Your task to perform on an android device: turn off location history Image 0: 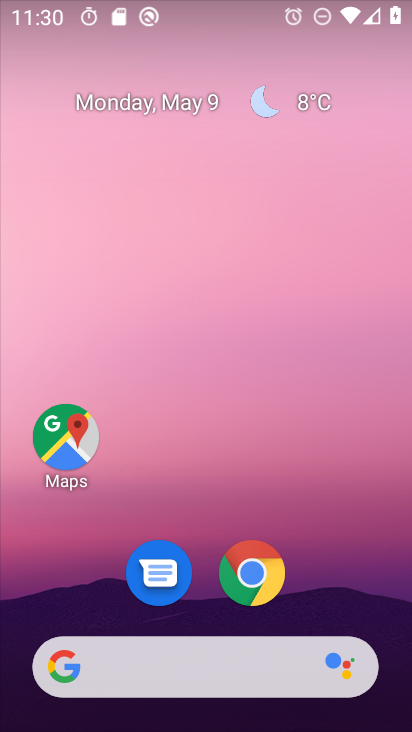
Step 0: drag from (332, 563) to (376, 166)
Your task to perform on an android device: turn off location history Image 1: 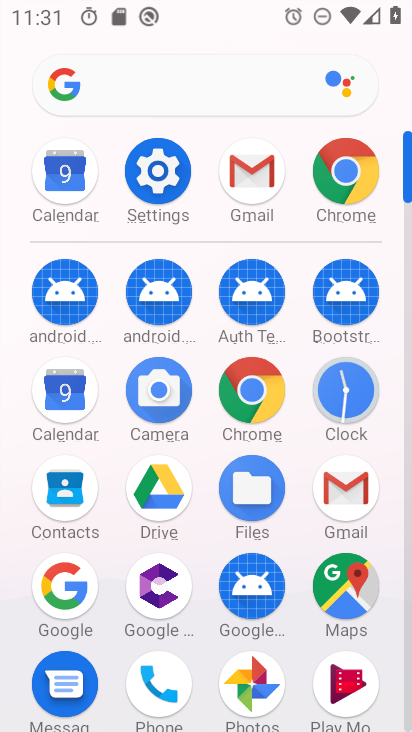
Step 1: click (145, 178)
Your task to perform on an android device: turn off location history Image 2: 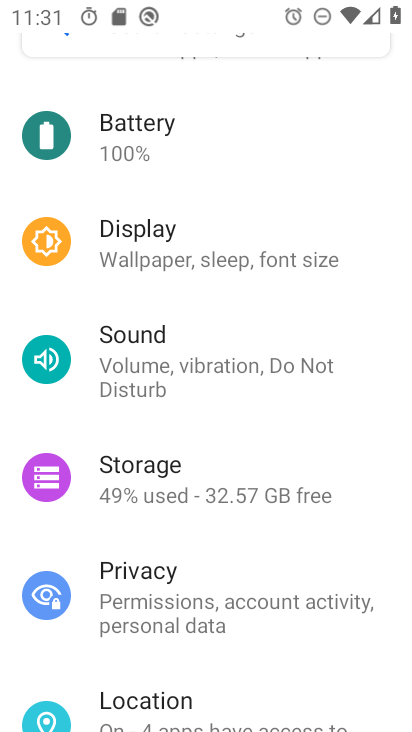
Step 2: drag from (247, 557) to (282, 229)
Your task to perform on an android device: turn off location history Image 3: 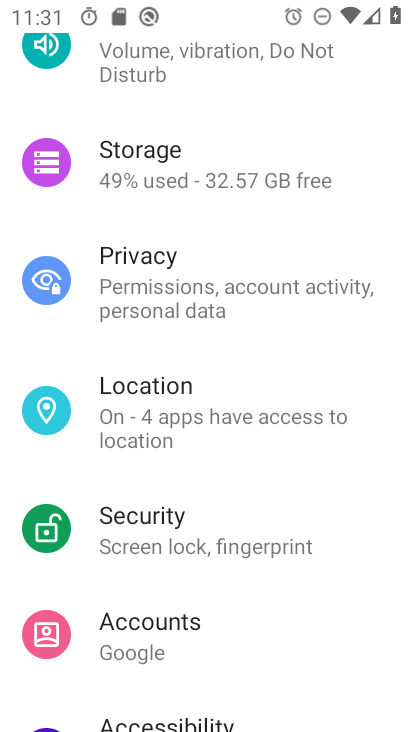
Step 3: click (165, 420)
Your task to perform on an android device: turn off location history Image 4: 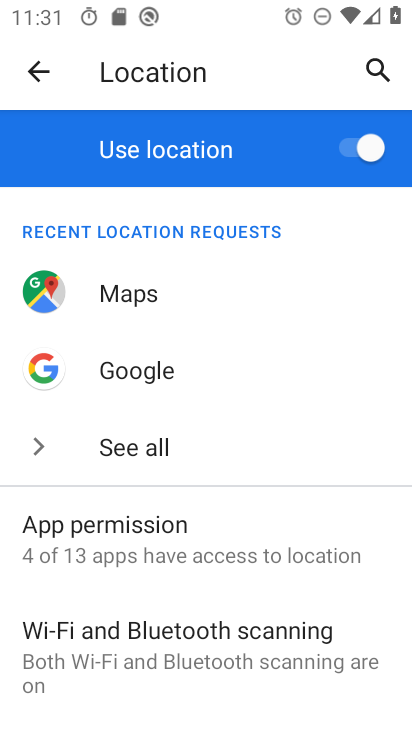
Step 4: drag from (318, 661) to (331, 152)
Your task to perform on an android device: turn off location history Image 5: 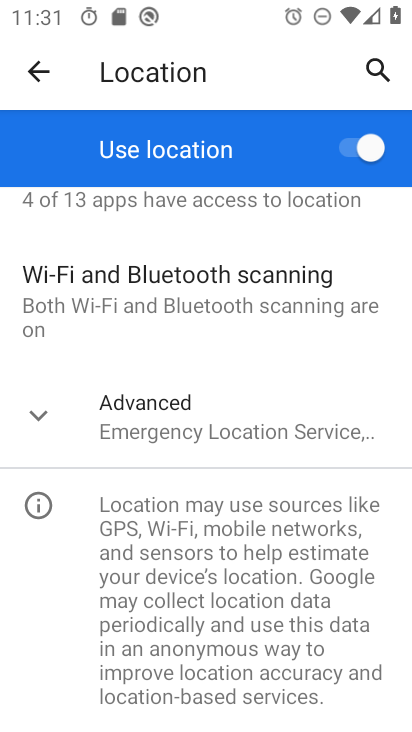
Step 5: click (260, 433)
Your task to perform on an android device: turn off location history Image 6: 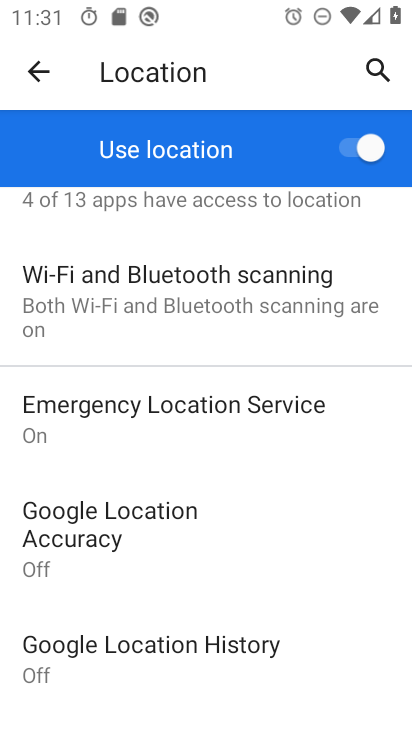
Step 6: drag from (284, 602) to (342, 328)
Your task to perform on an android device: turn off location history Image 7: 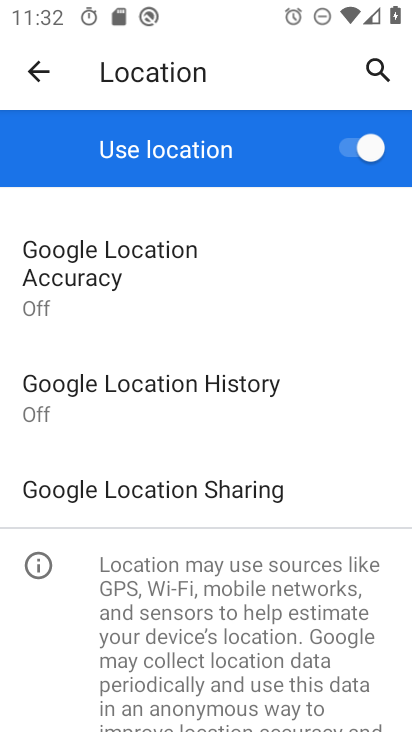
Step 7: click (247, 390)
Your task to perform on an android device: turn off location history Image 8: 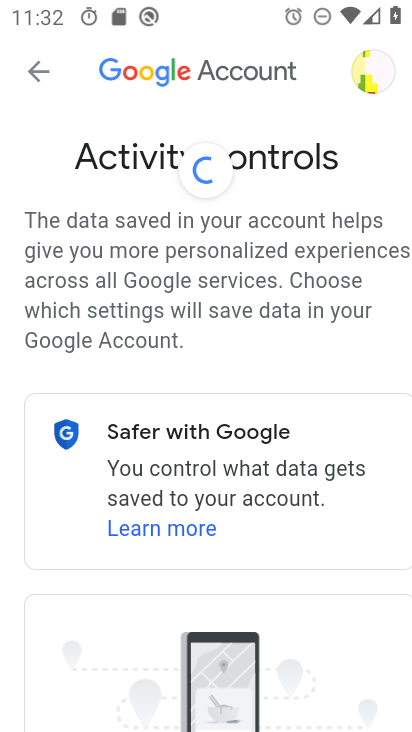
Step 8: task complete